Your task to perform on an android device: remove spam from my inbox in the gmail app Image 0: 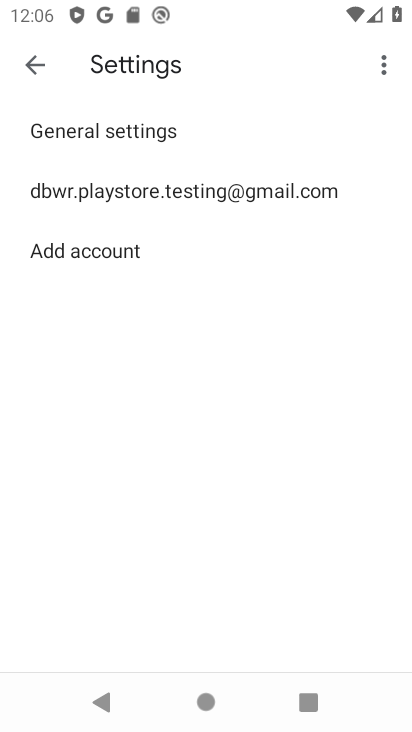
Step 0: click (33, 72)
Your task to perform on an android device: remove spam from my inbox in the gmail app Image 1: 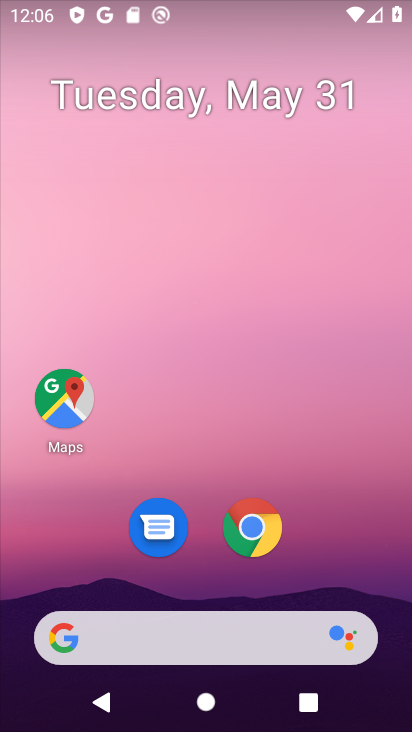
Step 1: drag from (225, 652) to (152, 124)
Your task to perform on an android device: remove spam from my inbox in the gmail app Image 2: 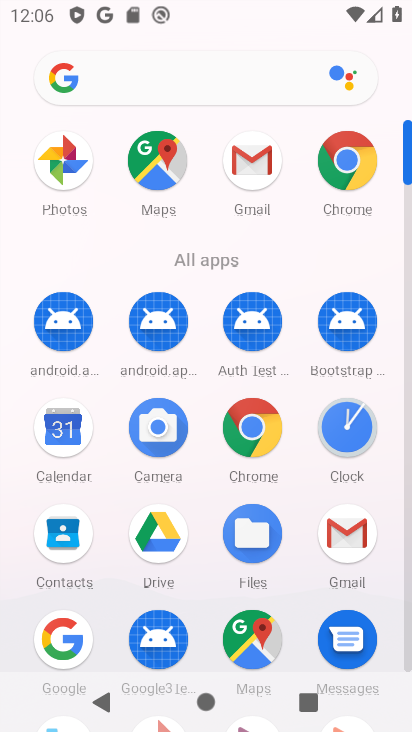
Step 2: click (346, 534)
Your task to perform on an android device: remove spam from my inbox in the gmail app Image 3: 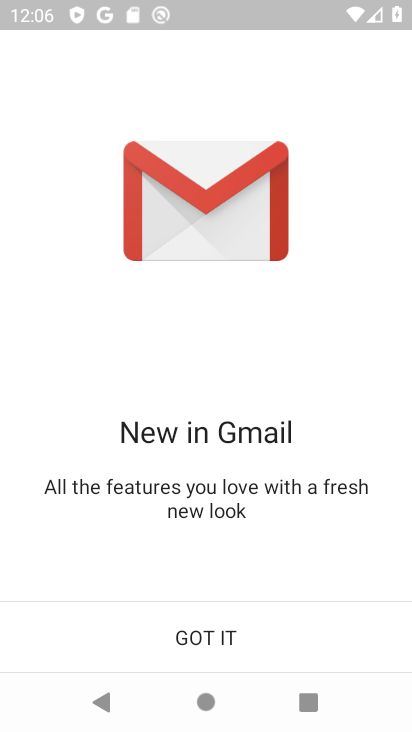
Step 3: click (205, 626)
Your task to perform on an android device: remove spam from my inbox in the gmail app Image 4: 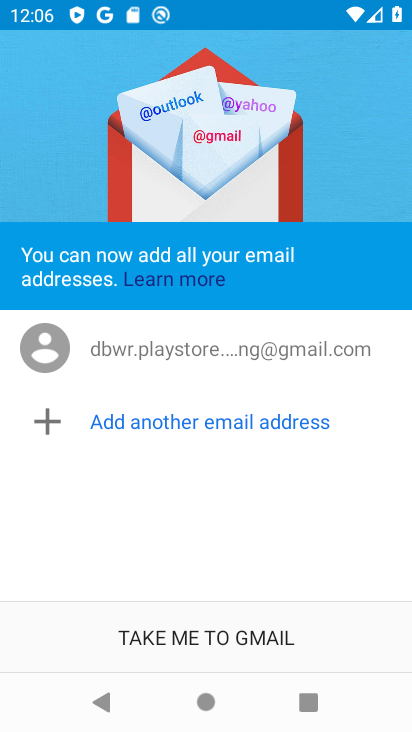
Step 4: click (200, 641)
Your task to perform on an android device: remove spam from my inbox in the gmail app Image 5: 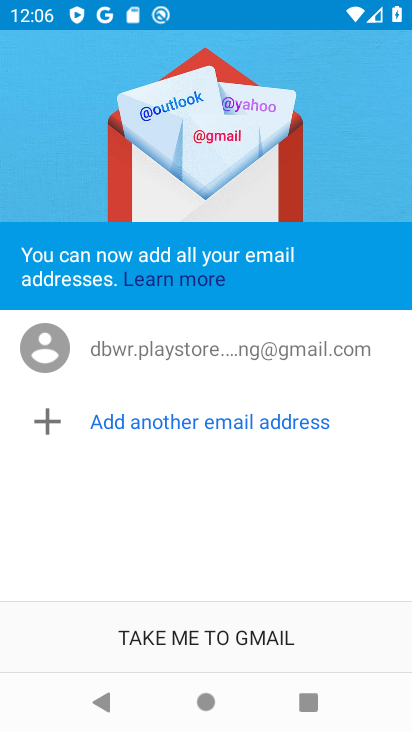
Step 5: click (201, 642)
Your task to perform on an android device: remove spam from my inbox in the gmail app Image 6: 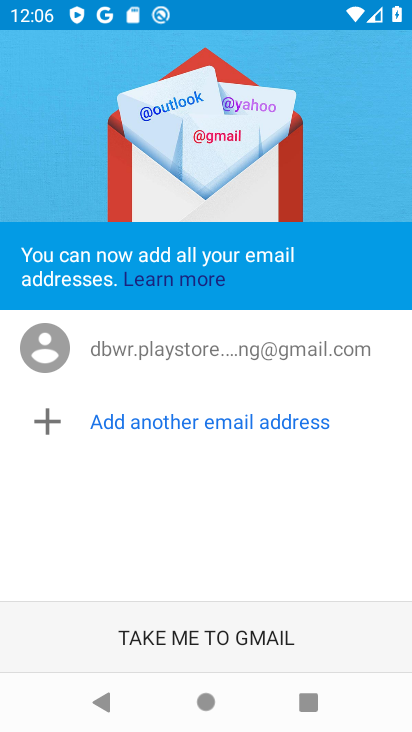
Step 6: click (197, 633)
Your task to perform on an android device: remove spam from my inbox in the gmail app Image 7: 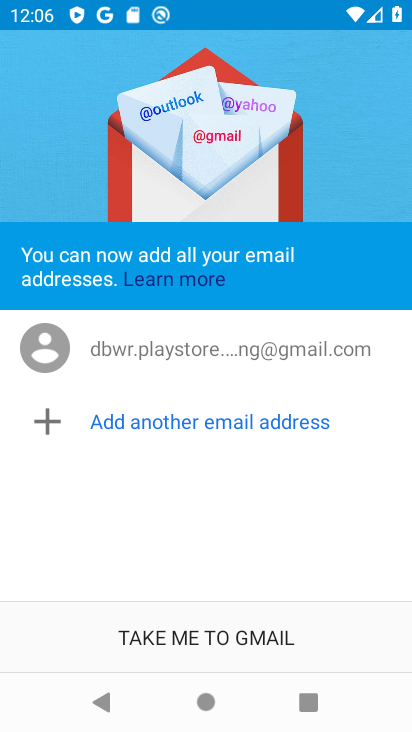
Step 7: click (197, 633)
Your task to perform on an android device: remove spam from my inbox in the gmail app Image 8: 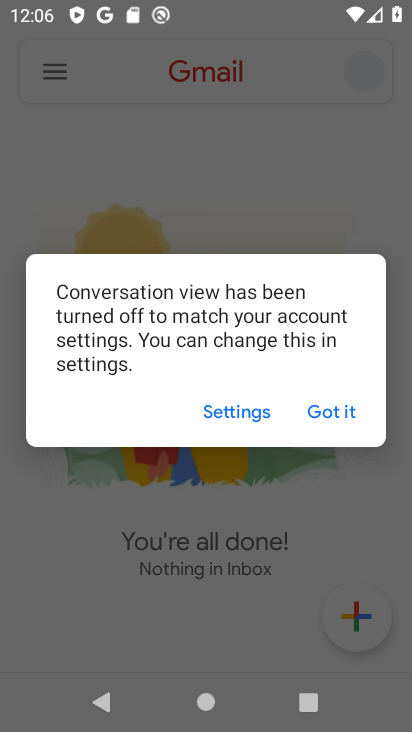
Step 8: click (344, 406)
Your task to perform on an android device: remove spam from my inbox in the gmail app Image 9: 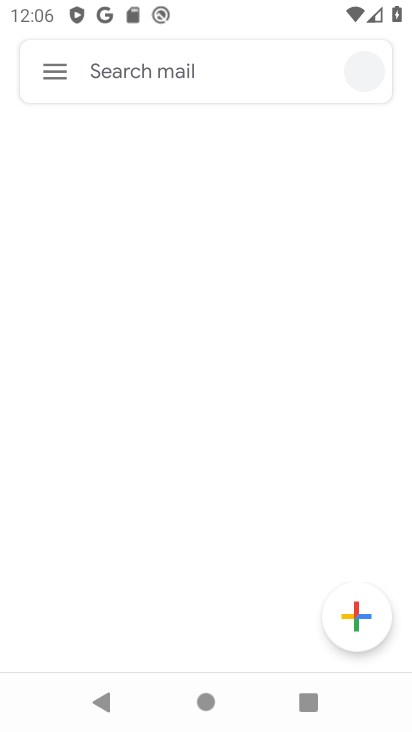
Step 9: click (49, 67)
Your task to perform on an android device: remove spam from my inbox in the gmail app Image 10: 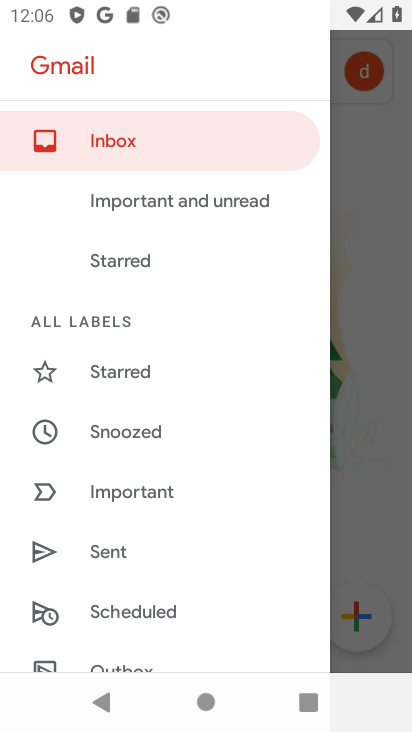
Step 10: drag from (131, 536) to (98, 282)
Your task to perform on an android device: remove spam from my inbox in the gmail app Image 11: 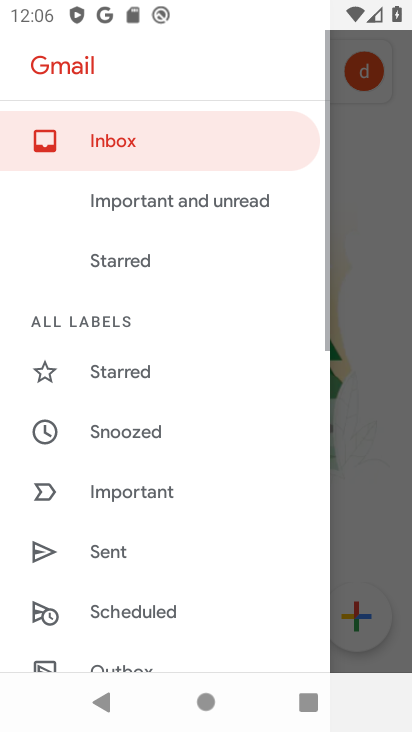
Step 11: drag from (136, 482) to (136, 169)
Your task to perform on an android device: remove spam from my inbox in the gmail app Image 12: 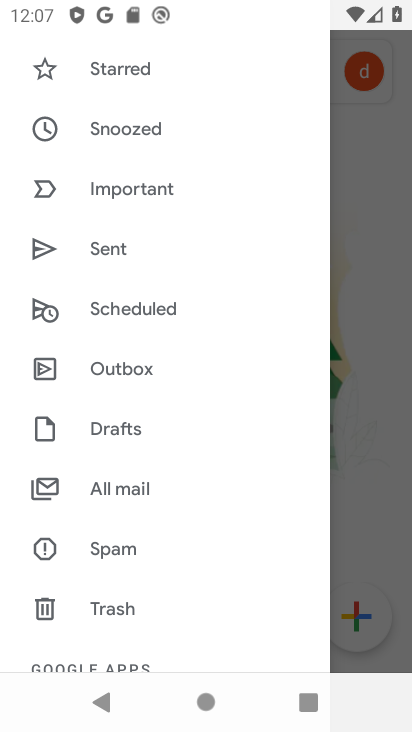
Step 12: click (116, 549)
Your task to perform on an android device: remove spam from my inbox in the gmail app Image 13: 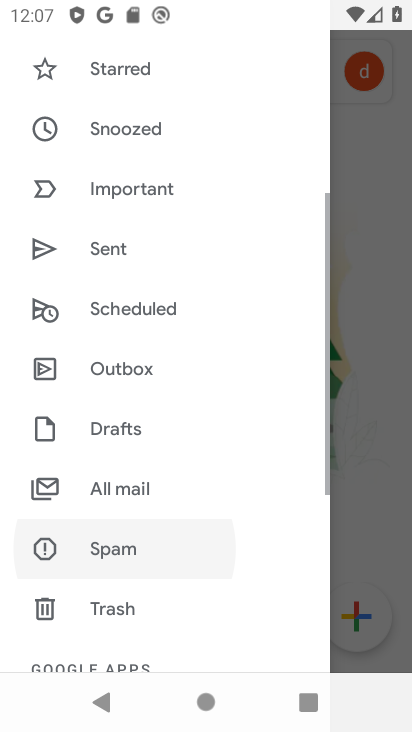
Step 13: click (116, 549)
Your task to perform on an android device: remove spam from my inbox in the gmail app Image 14: 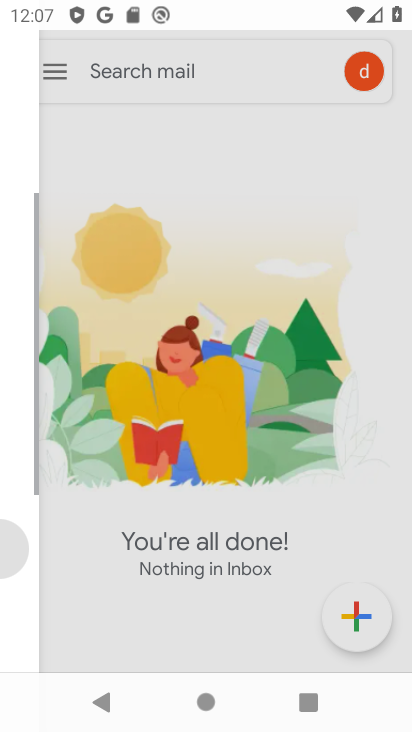
Step 14: click (116, 549)
Your task to perform on an android device: remove spam from my inbox in the gmail app Image 15: 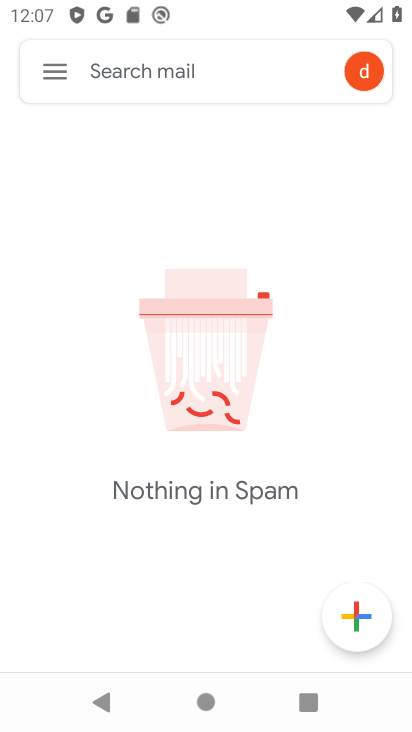
Step 15: task complete